Your task to perform on an android device: turn off javascript in the chrome app Image 0: 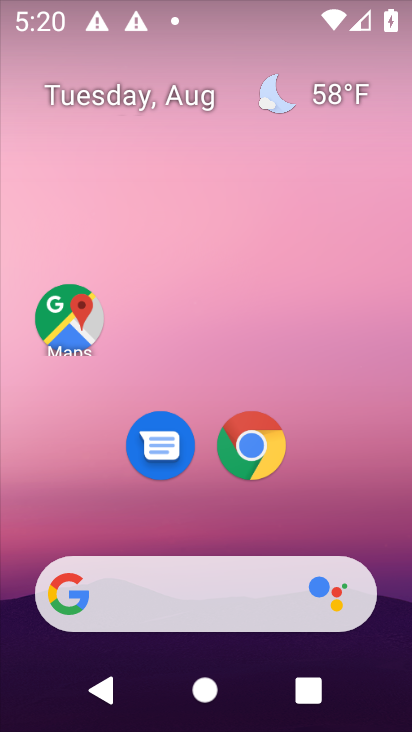
Step 0: click (245, 441)
Your task to perform on an android device: turn off javascript in the chrome app Image 1: 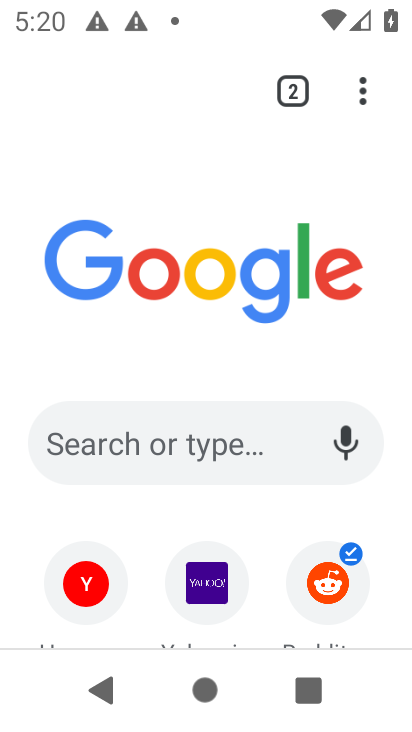
Step 1: click (362, 94)
Your task to perform on an android device: turn off javascript in the chrome app Image 2: 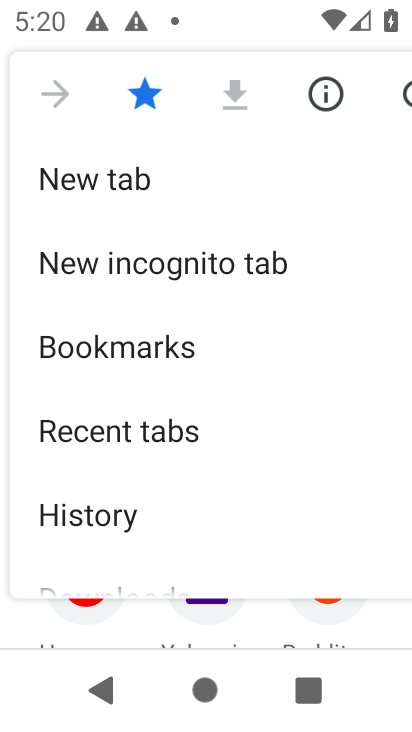
Step 2: drag from (164, 474) to (137, 269)
Your task to perform on an android device: turn off javascript in the chrome app Image 3: 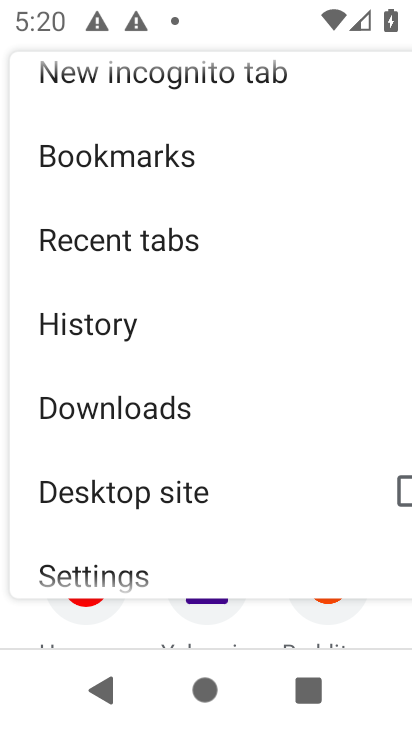
Step 3: click (107, 572)
Your task to perform on an android device: turn off javascript in the chrome app Image 4: 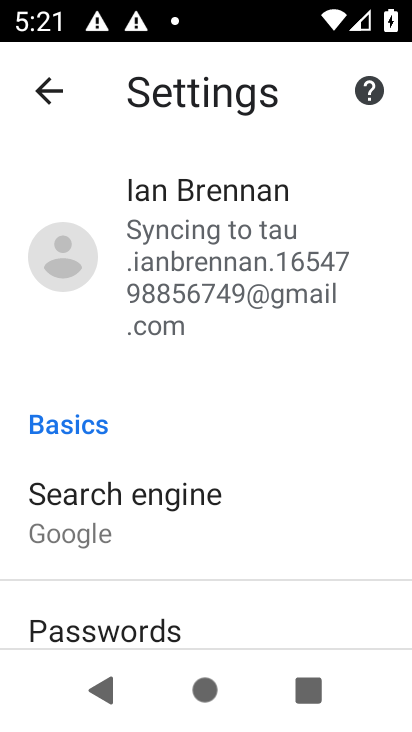
Step 4: drag from (202, 584) to (207, 228)
Your task to perform on an android device: turn off javascript in the chrome app Image 5: 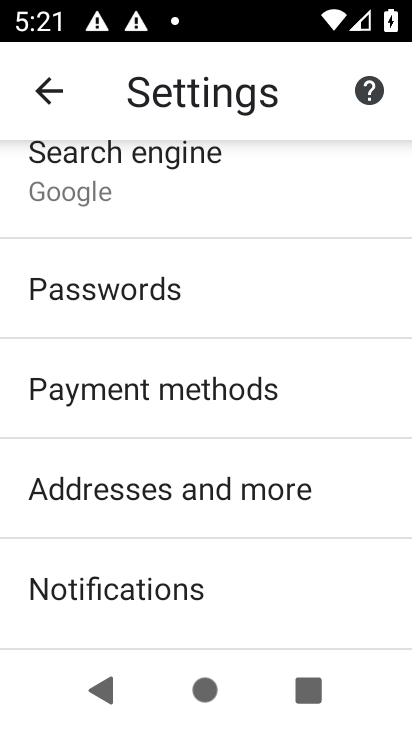
Step 5: drag from (263, 583) to (216, 246)
Your task to perform on an android device: turn off javascript in the chrome app Image 6: 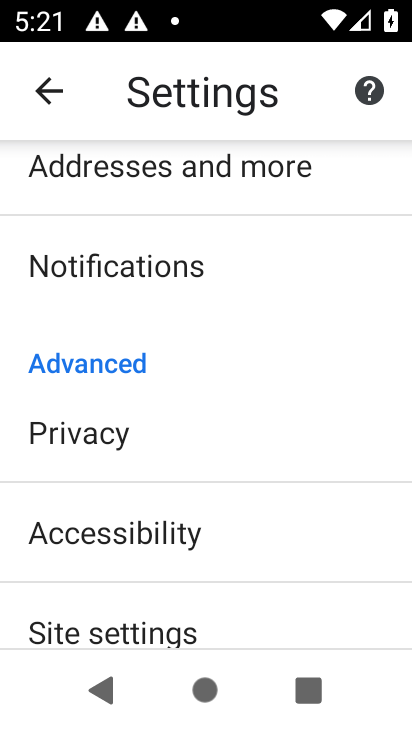
Step 6: click (98, 629)
Your task to perform on an android device: turn off javascript in the chrome app Image 7: 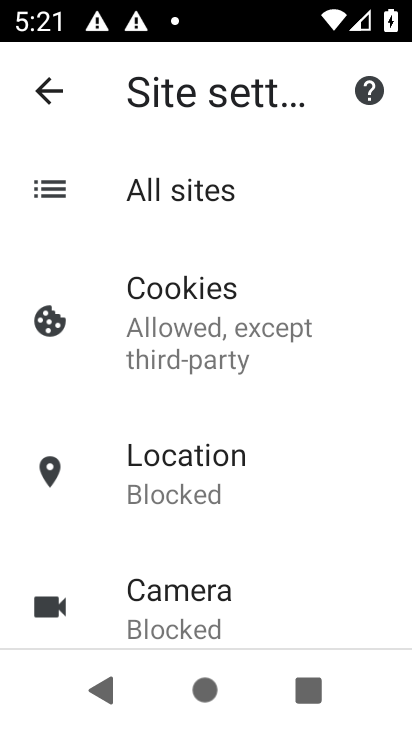
Step 7: drag from (275, 537) to (224, 146)
Your task to perform on an android device: turn off javascript in the chrome app Image 8: 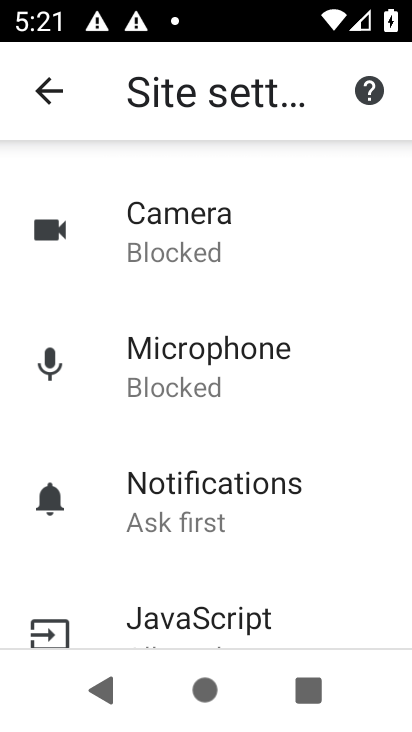
Step 8: click (162, 606)
Your task to perform on an android device: turn off javascript in the chrome app Image 9: 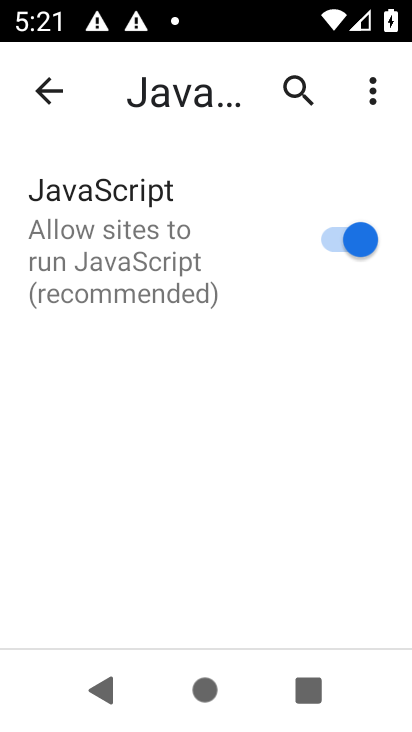
Step 9: click (327, 242)
Your task to perform on an android device: turn off javascript in the chrome app Image 10: 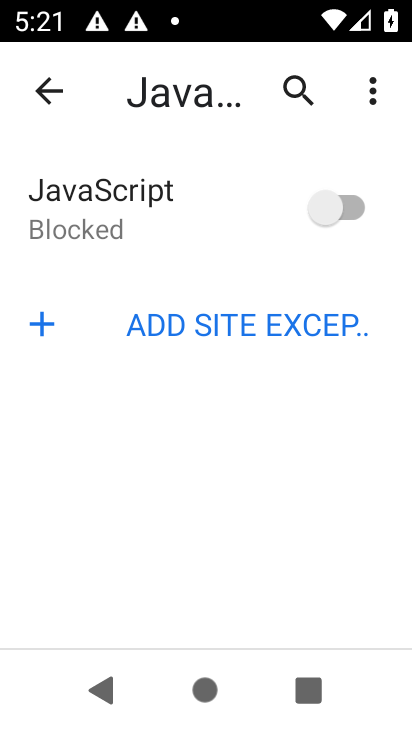
Step 10: task complete